Your task to perform on an android device: turn off airplane mode Image 0: 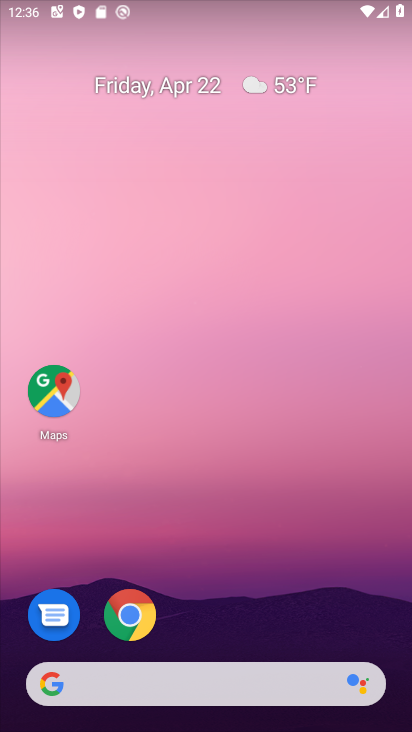
Step 0: drag from (261, 709) to (313, 144)
Your task to perform on an android device: turn off airplane mode Image 1: 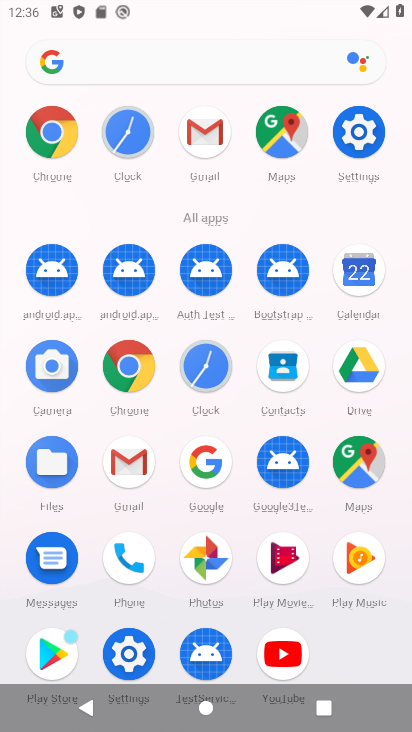
Step 1: click (359, 138)
Your task to perform on an android device: turn off airplane mode Image 2: 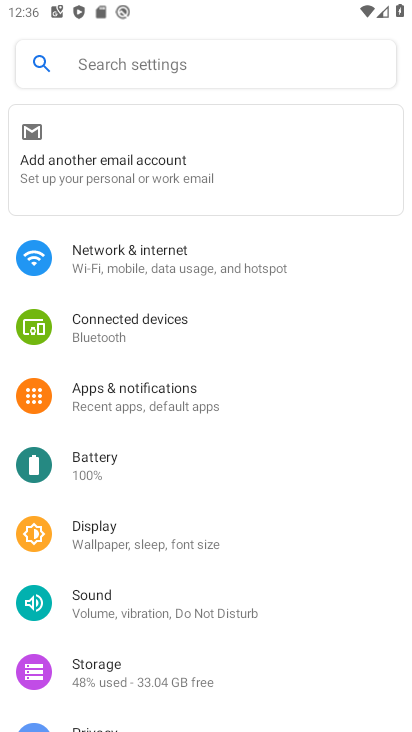
Step 2: click (244, 268)
Your task to perform on an android device: turn off airplane mode Image 3: 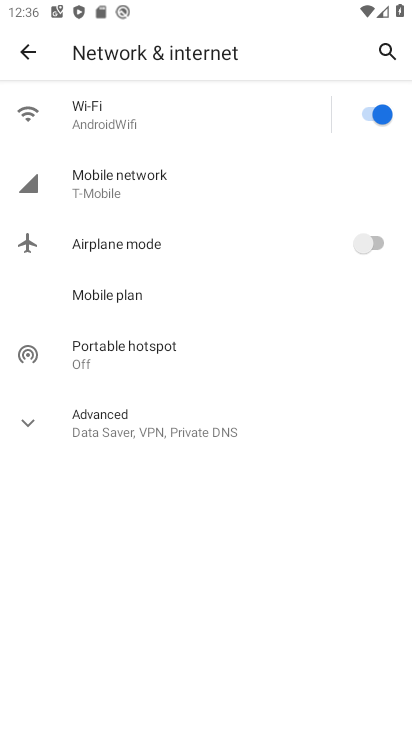
Step 3: task complete